Your task to perform on an android device: change the upload size in google photos Image 0: 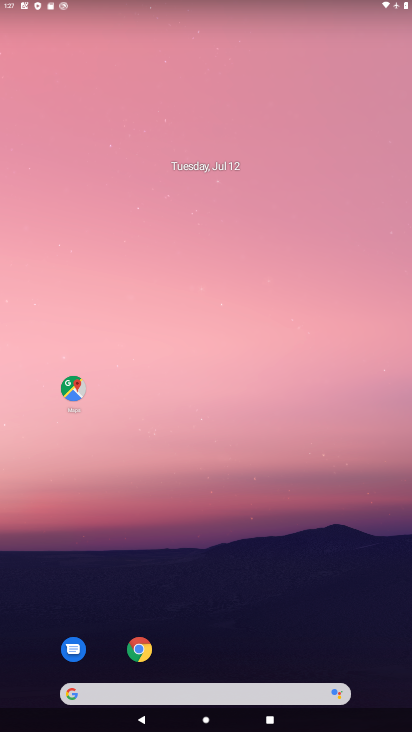
Step 0: drag from (254, 631) to (253, 131)
Your task to perform on an android device: change the upload size in google photos Image 1: 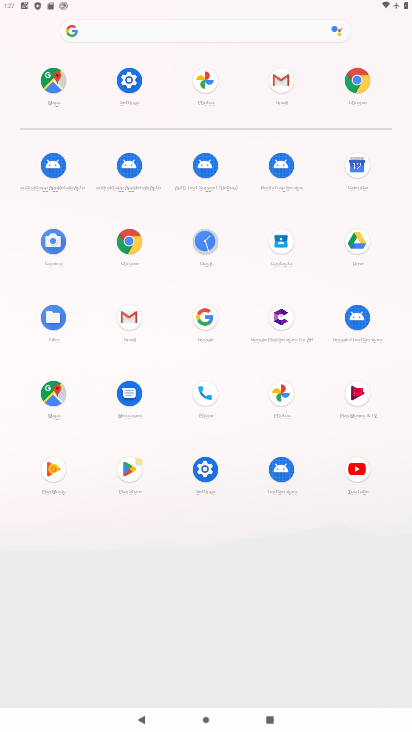
Step 1: click (200, 68)
Your task to perform on an android device: change the upload size in google photos Image 2: 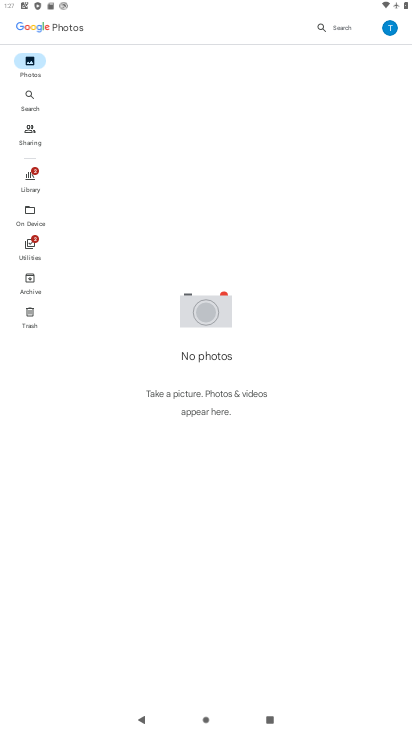
Step 2: click (386, 24)
Your task to perform on an android device: change the upload size in google photos Image 3: 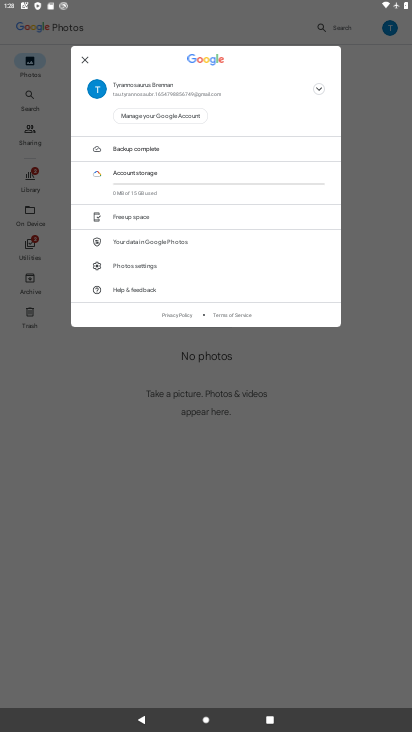
Step 3: click (172, 268)
Your task to perform on an android device: change the upload size in google photos Image 4: 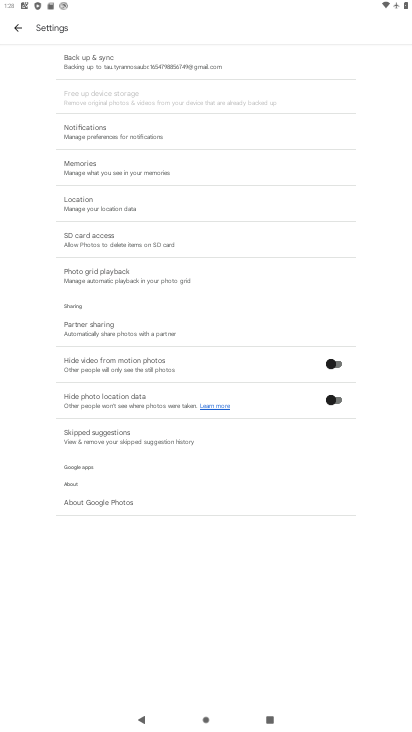
Step 4: click (133, 56)
Your task to perform on an android device: change the upload size in google photos Image 5: 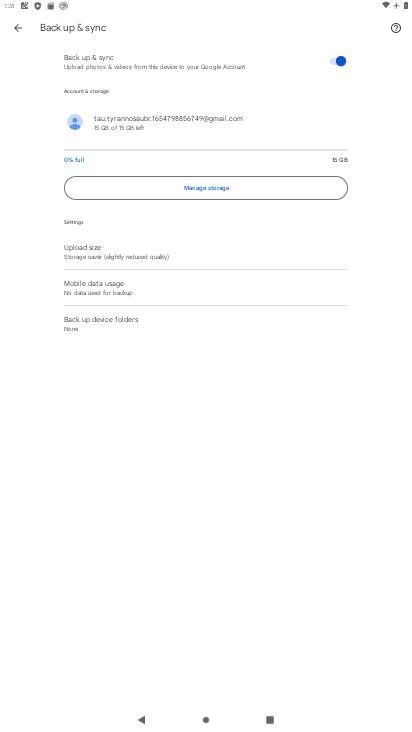
Step 5: task complete